Your task to perform on an android device: change notifications settings Image 0: 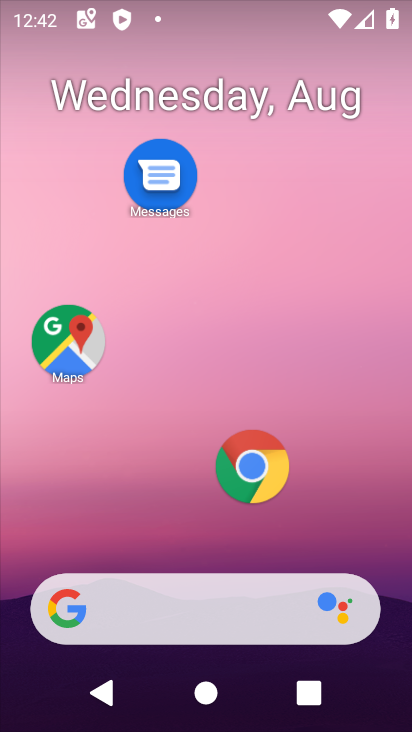
Step 0: click (272, 13)
Your task to perform on an android device: change notifications settings Image 1: 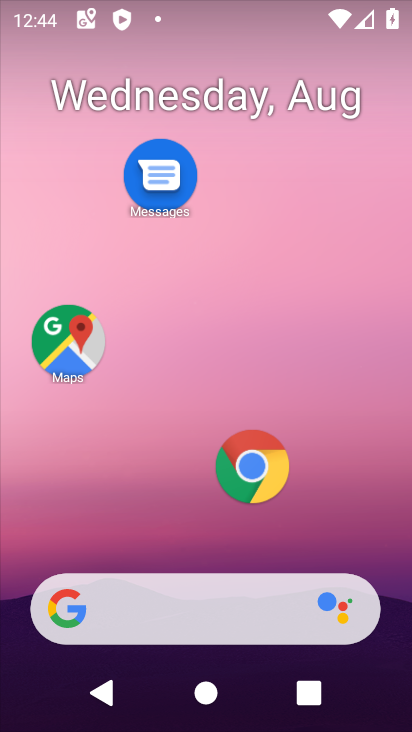
Step 1: drag from (207, 465) to (206, 162)
Your task to perform on an android device: change notifications settings Image 2: 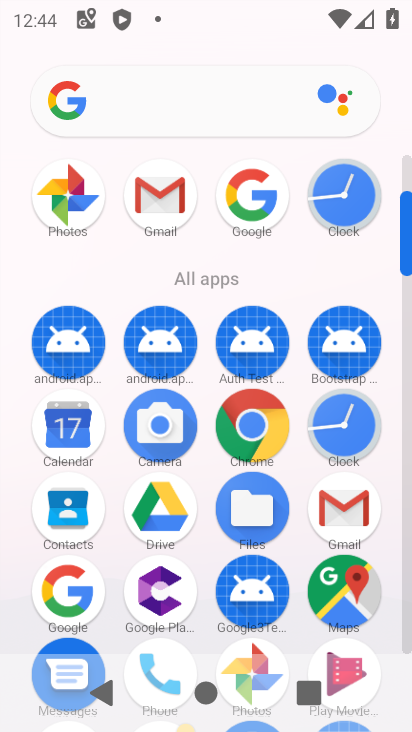
Step 2: click (198, 360)
Your task to perform on an android device: change notifications settings Image 3: 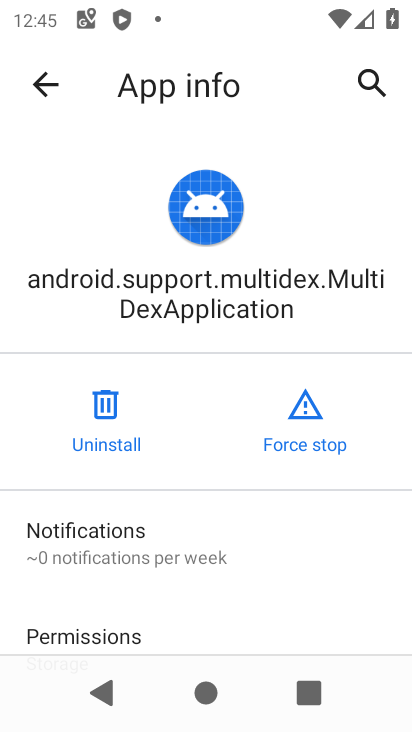
Step 3: press home button
Your task to perform on an android device: change notifications settings Image 4: 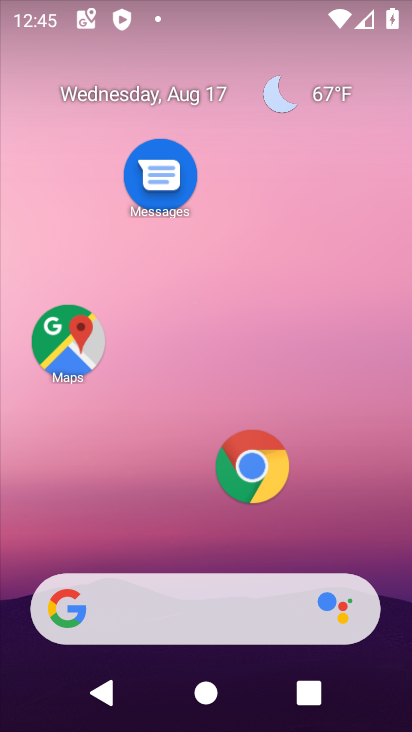
Step 4: drag from (197, 512) to (196, 114)
Your task to perform on an android device: change notifications settings Image 5: 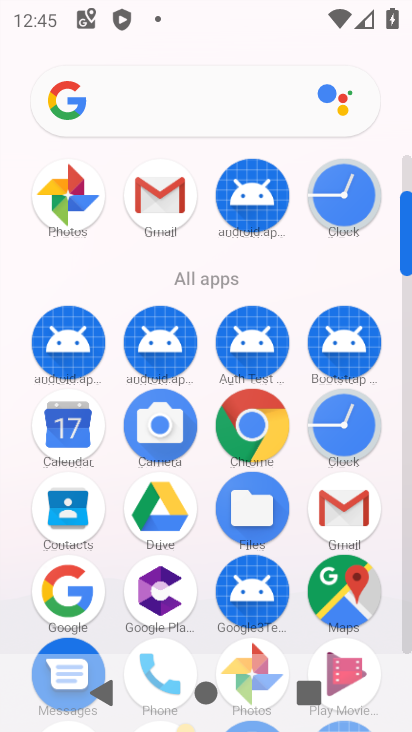
Step 5: drag from (200, 625) to (221, 270)
Your task to perform on an android device: change notifications settings Image 6: 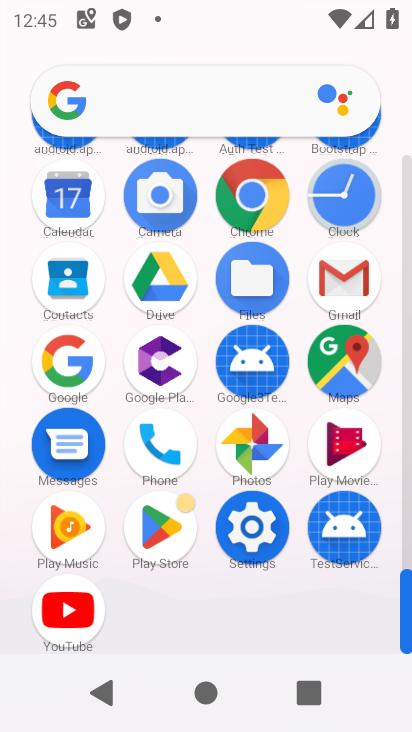
Step 6: click (245, 526)
Your task to perform on an android device: change notifications settings Image 7: 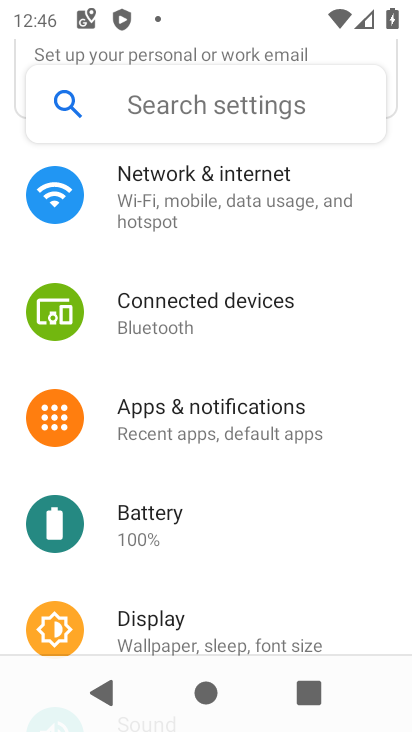
Step 7: click (218, 309)
Your task to perform on an android device: change notifications settings Image 8: 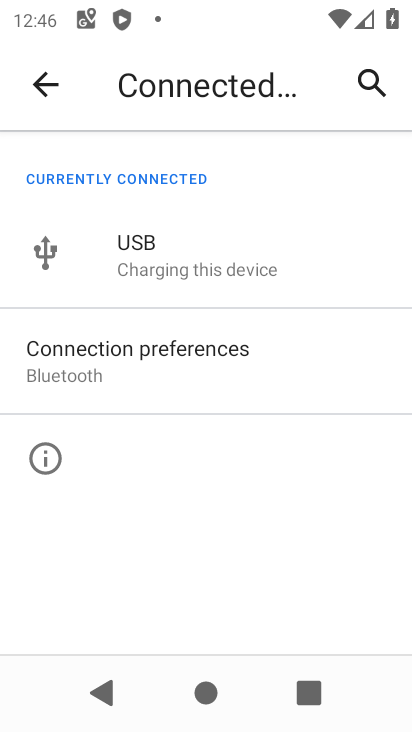
Step 8: click (51, 91)
Your task to perform on an android device: change notifications settings Image 9: 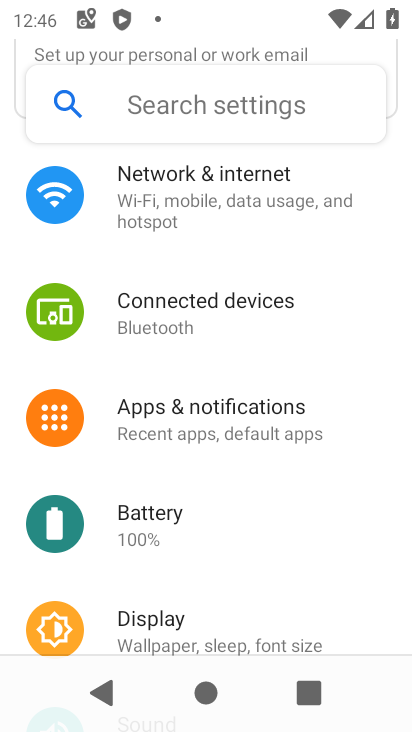
Step 9: click (157, 435)
Your task to perform on an android device: change notifications settings Image 10: 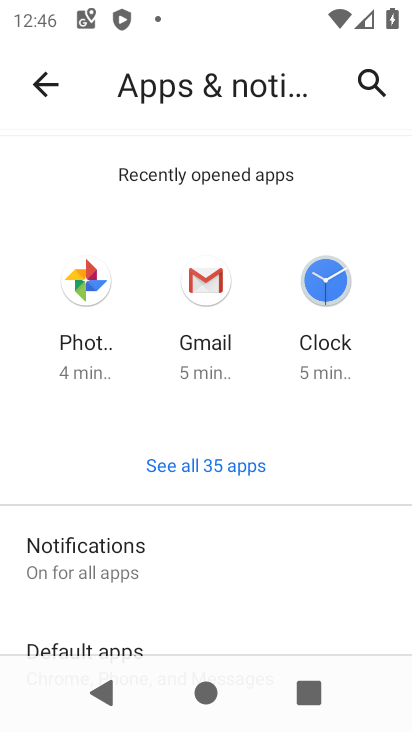
Step 10: click (84, 570)
Your task to perform on an android device: change notifications settings Image 11: 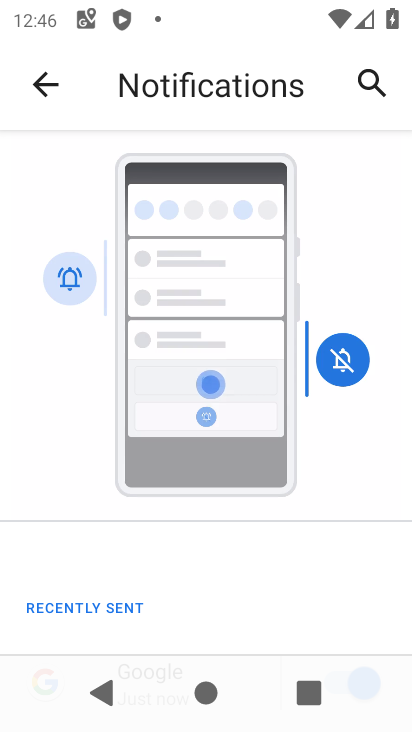
Step 11: click (84, 570)
Your task to perform on an android device: change notifications settings Image 12: 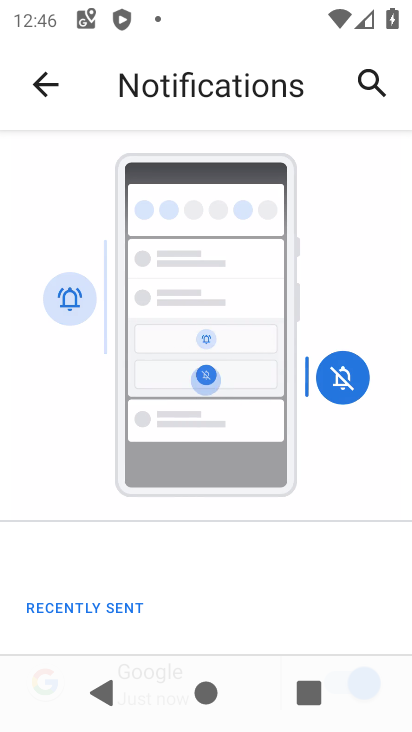
Step 12: drag from (210, 356) to (221, 200)
Your task to perform on an android device: change notifications settings Image 13: 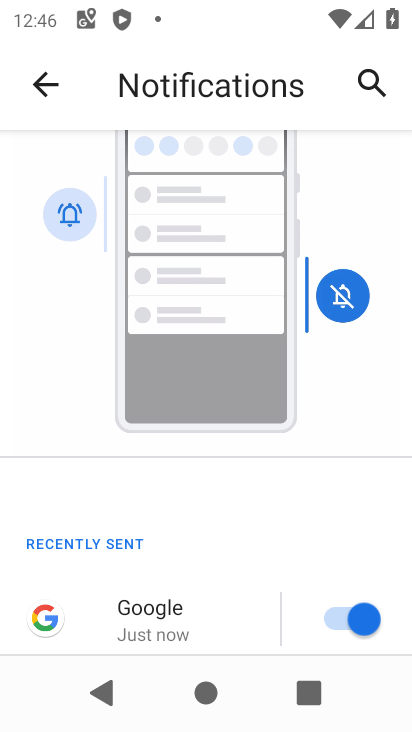
Step 13: drag from (213, 514) to (275, 115)
Your task to perform on an android device: change notifications settings Image 14: 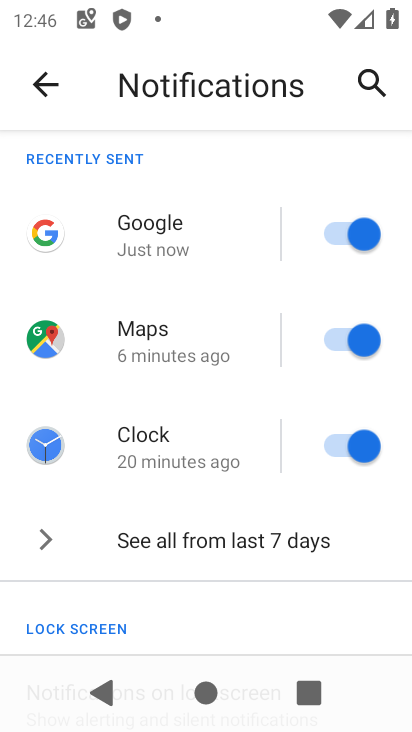
Step 14: drag from (204, 613) to (198, 223)
Your task to perform on an android device: change notifications settings Image 15: 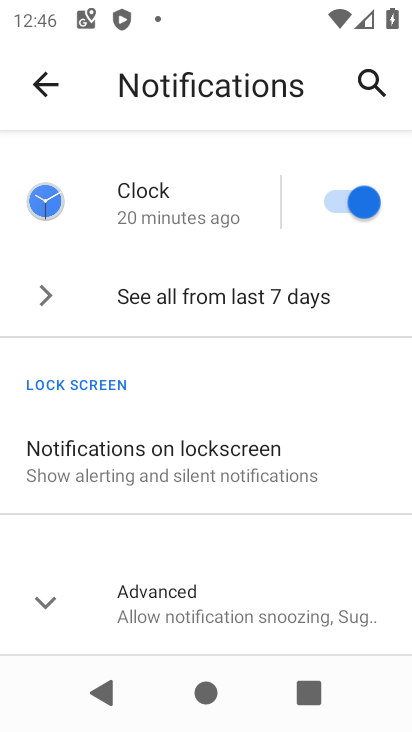
Step 15: drag from (176, 547) to (198, 284)
Your task to perform on an android device: change notifications settings Image 16: 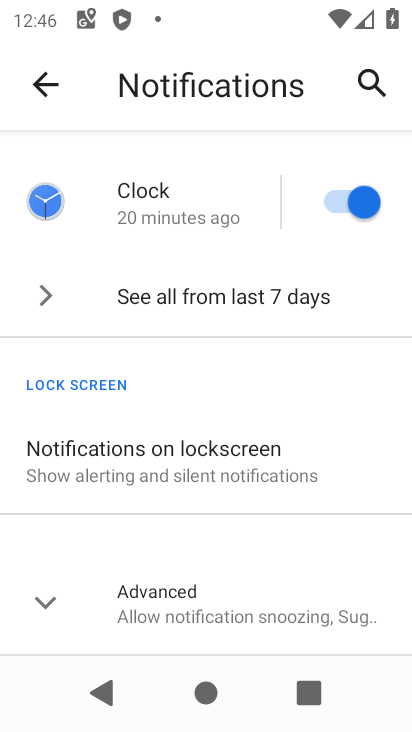
Step 16: click (41, 608)
Your task to perform on an android device: change notifications settings Image 17: 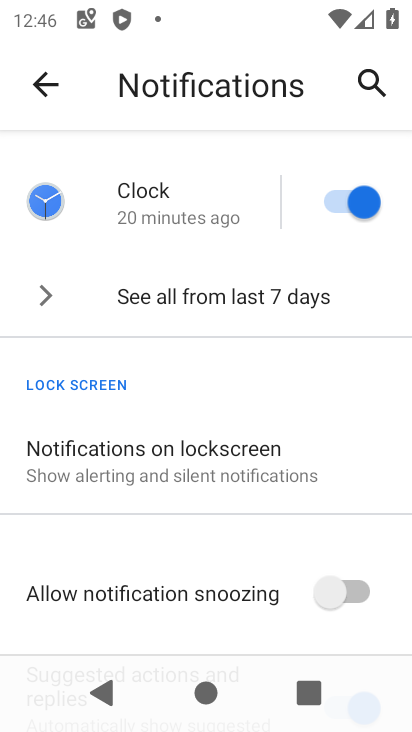
Step 17: drag from (116, 606) to (186, 239)
Your task to perform on an android device: change notifications settings Image 18: 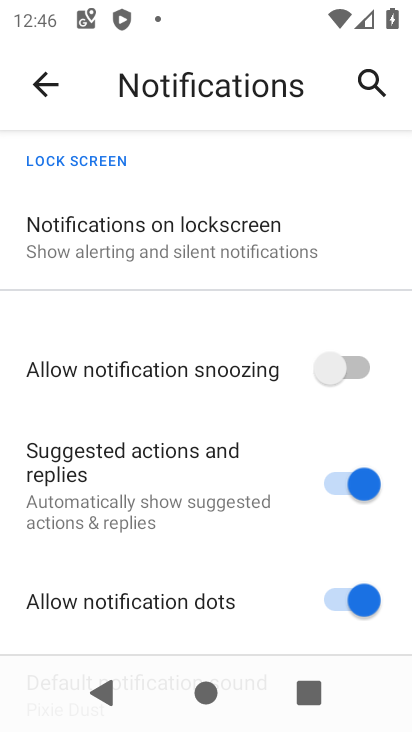
Step 18: drag from (259, 555) to (286, 290)
Your task to perform on an android device: change notifications settings Image 19: 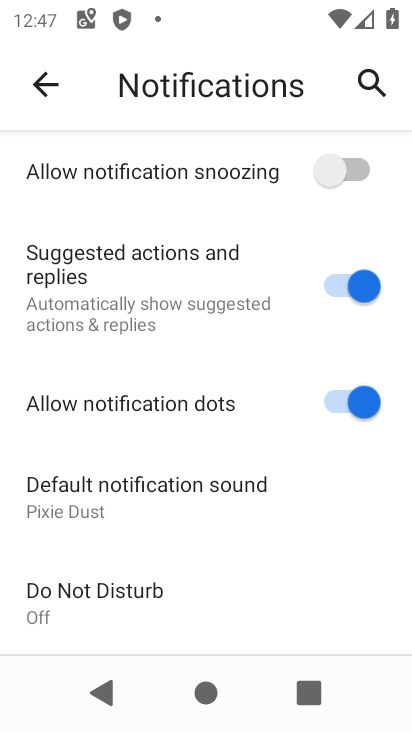
Step 19: click (333, 412)
Your task to perform on an android device: change notifications settings Image 20: 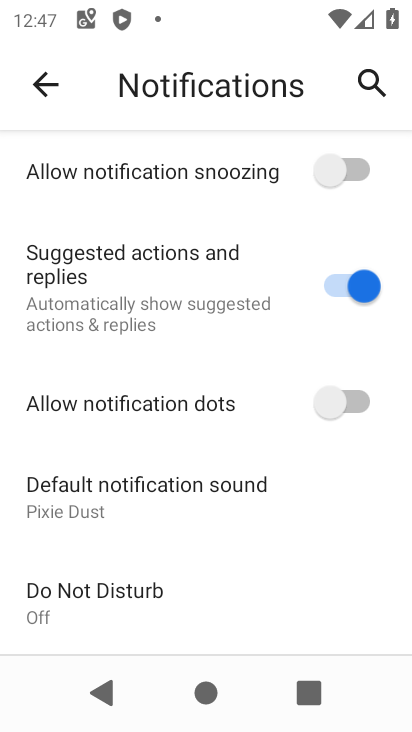
Step 20: task complete